Your task to perform on an android device: change the clock display to digital Image 0: 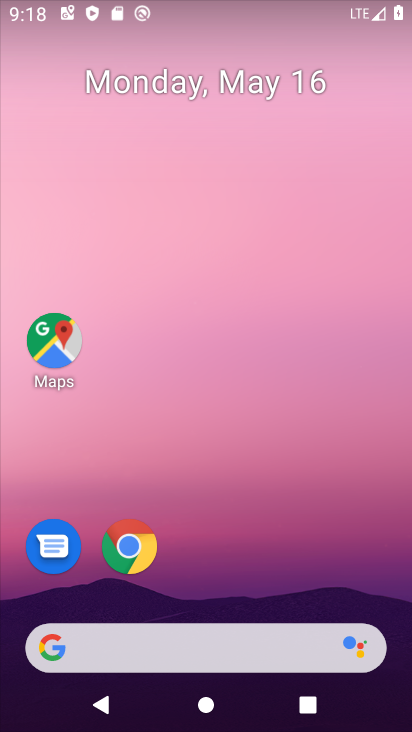
Step 0: drag from (274, 655) to (241, 176)
Your task to perform on an android device: change the clock display to digital Image 1: 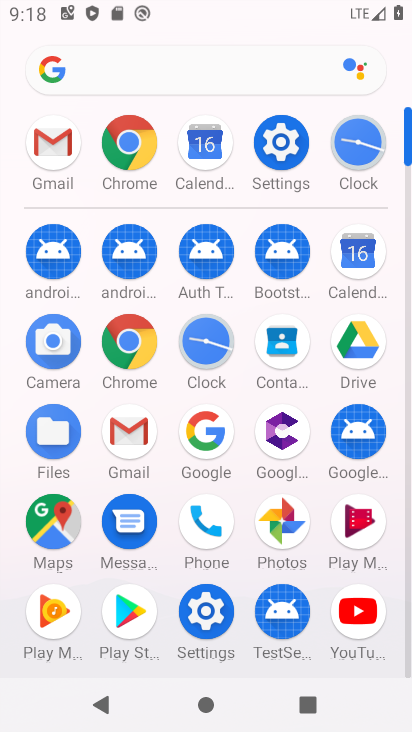
Step 1: click (341, 149)
Your task to perform on an android device: change the clock display to digital Image 2: 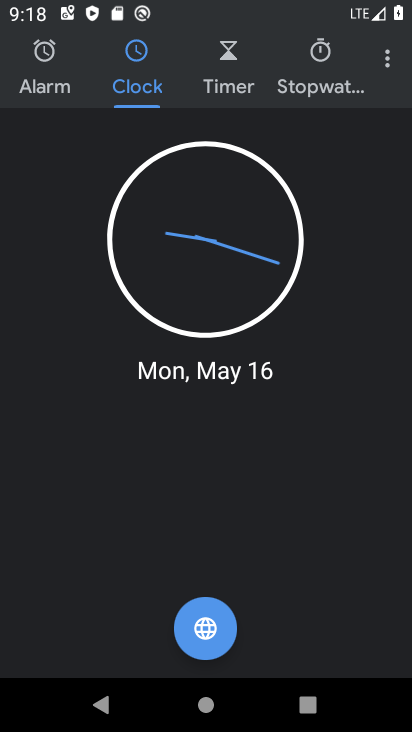
Step 2: click (373, 67)
Your task to perform on an android device: change the clock display to digital Image 3: 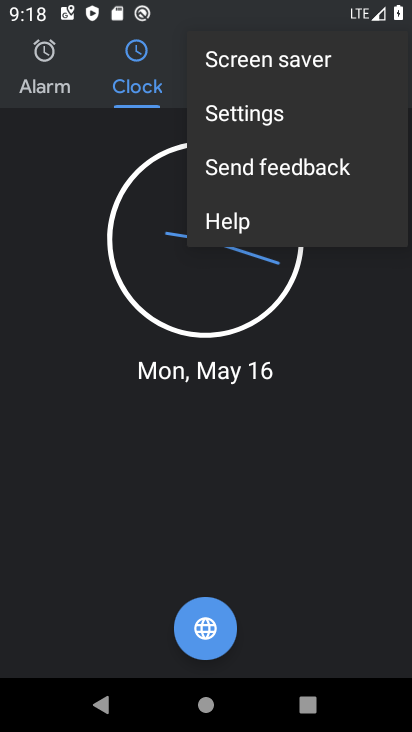
Step 3: click (262, 139)
Your task to perform on an android device: change the clock display to digital Image 4: 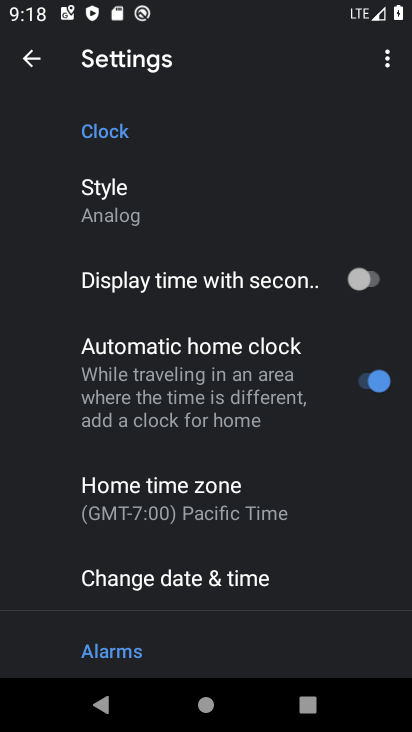
Step 4: click (103, 213)
Your task to perform on an android device: change the clock display to digital Image 5: 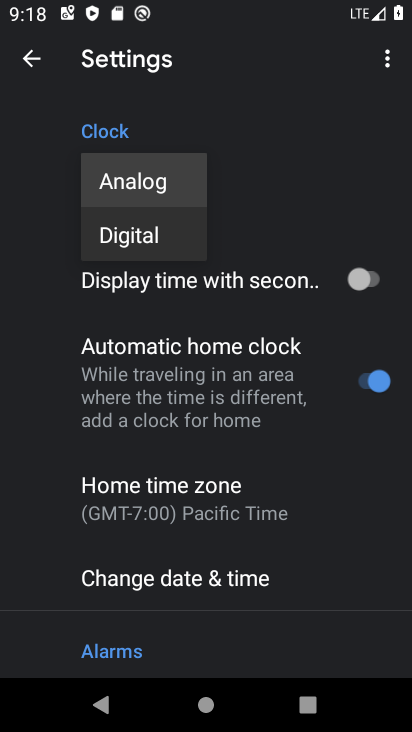
Step 5: click (136, 237)
Your task to perform on an android device: change the clock display to digital Image 6: 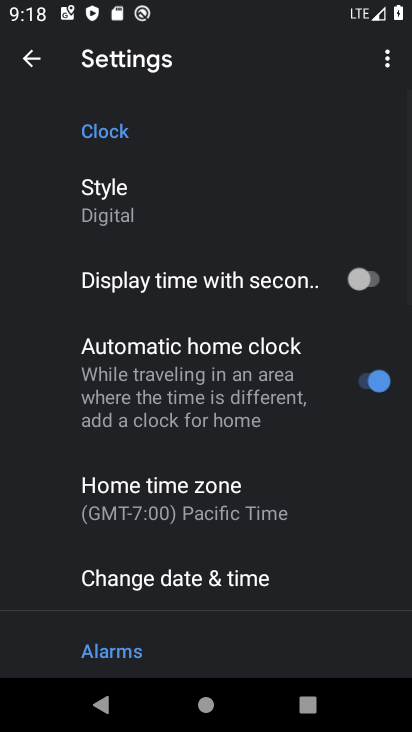
Step 6: task complete